Your task to perform on an android device: Open wifi settings Image 0: 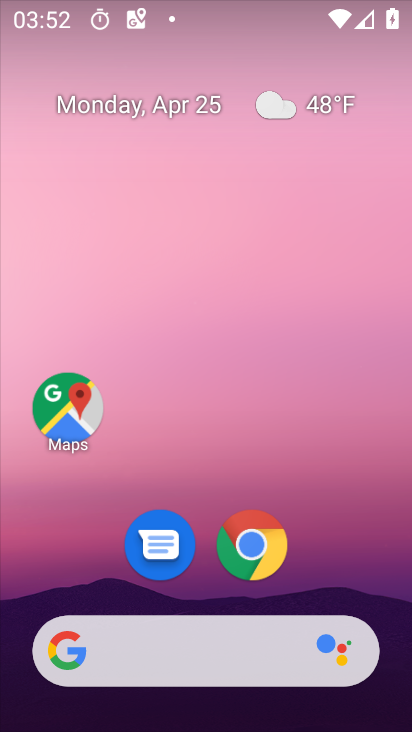
Step 0: drag from (220, 436) to (225, 62)
Your task to perform on an android device: Open wifi settings Image 1: 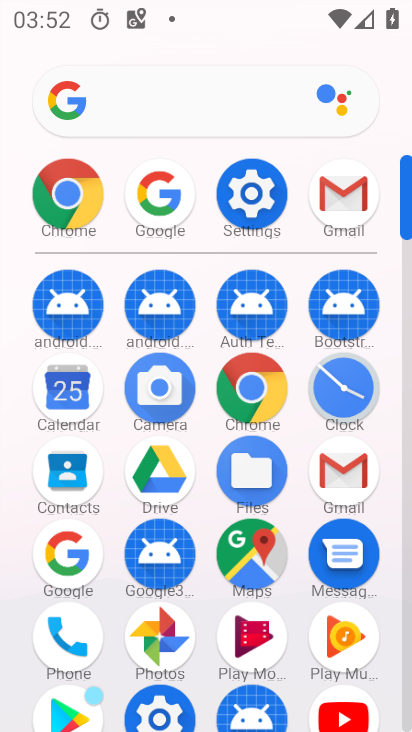
Step 1: click (253, 192)
Your task to perform on an android device: Open wifi settings Image 2: 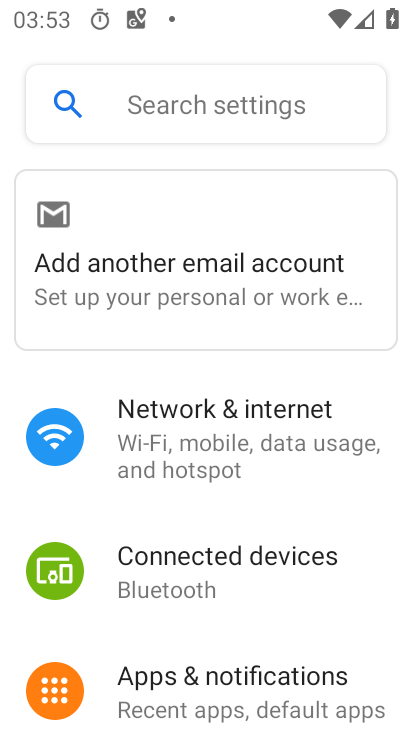
Step 2: click (176, 405)
Your task to perform on an android device: Open wifi settings Image 3: 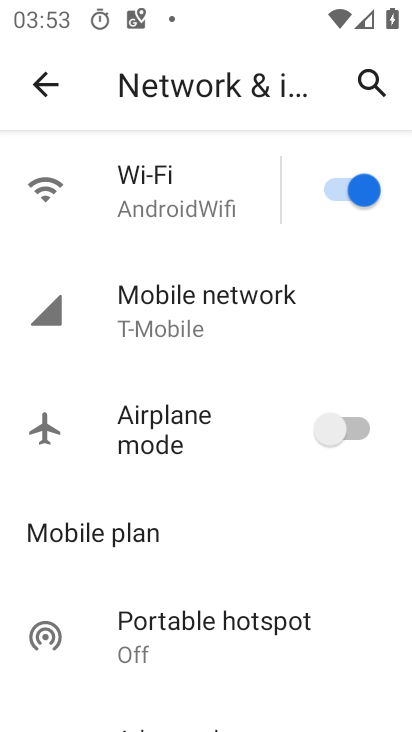
Step 3: click (176, 200)
Your task to perform on an android device: Open wifi settings Image 4: 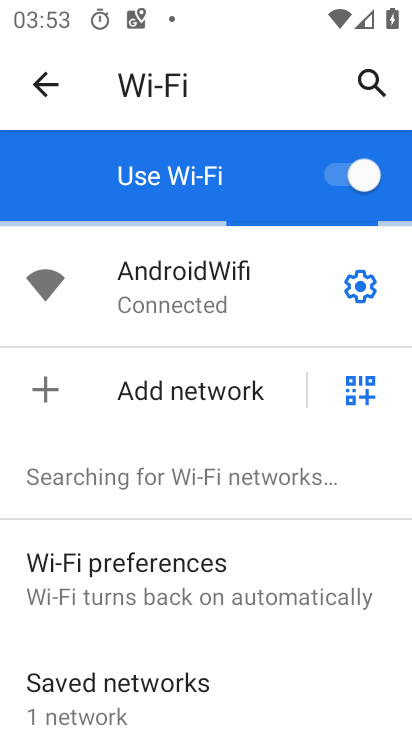
Step 4: click (358, 281)
Your task to perform on an android device: Open wifi settings Image 5: 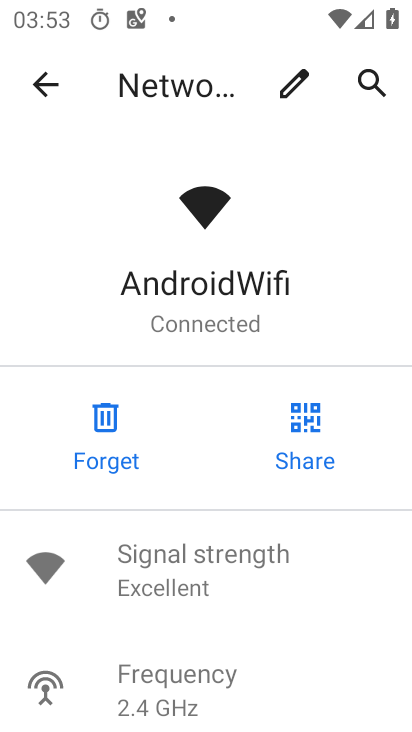
Step 5: task complete